Your task to perform on an android device: turn off translation in the chrome app Image 0: 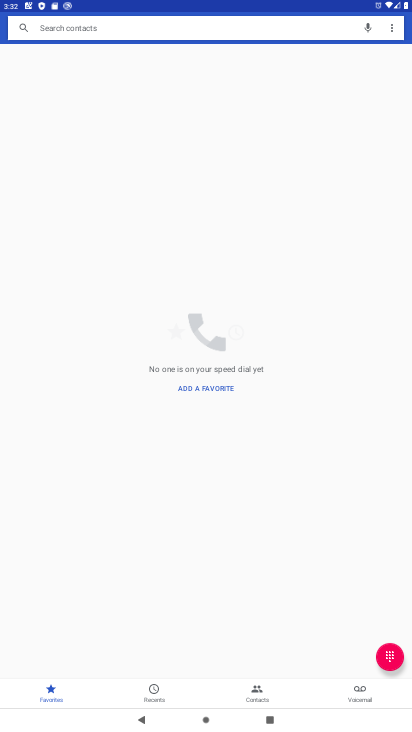
Step 0: press home button
Your task to perform on an android device: turn off translation in the chrome app Image 1: 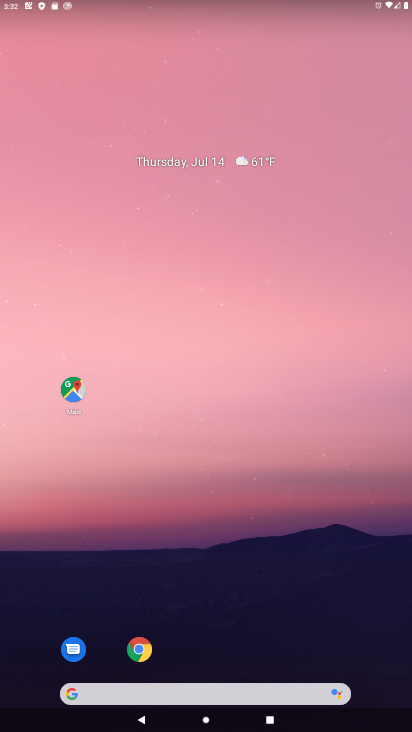
Step 1: drag from (192, 664) to (235, 107)
Your task to perform on an android device: turn off translation in the chrome app Image 2: 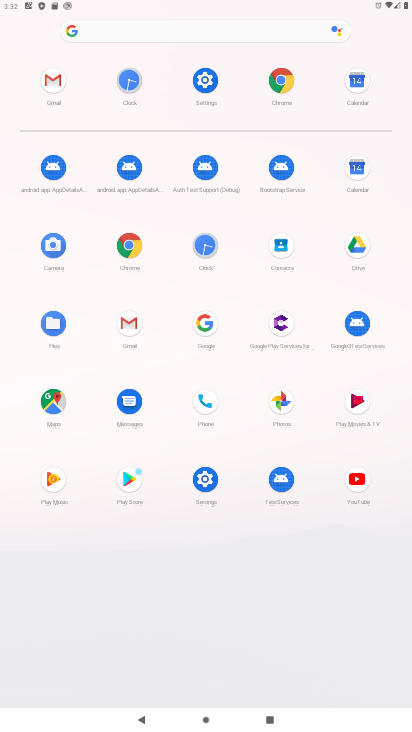
Step 2: click (128, 256)
Your task to perform on an android device: turn off translation in the chrome app Image 3: 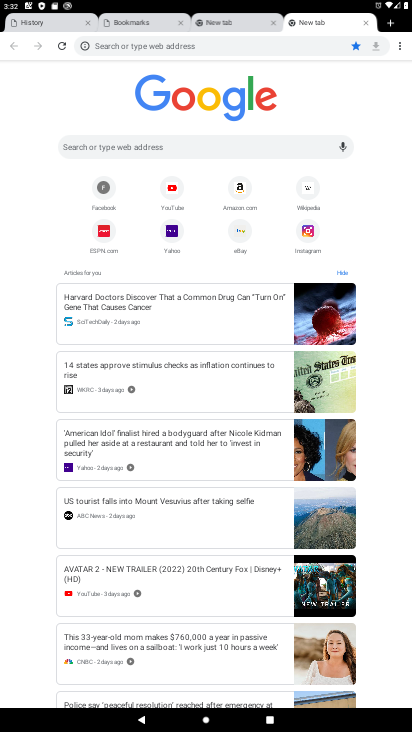
Step 3: click (402, 49)
Your task to perform on an android device: turn off translation in the chrome app Image 4: 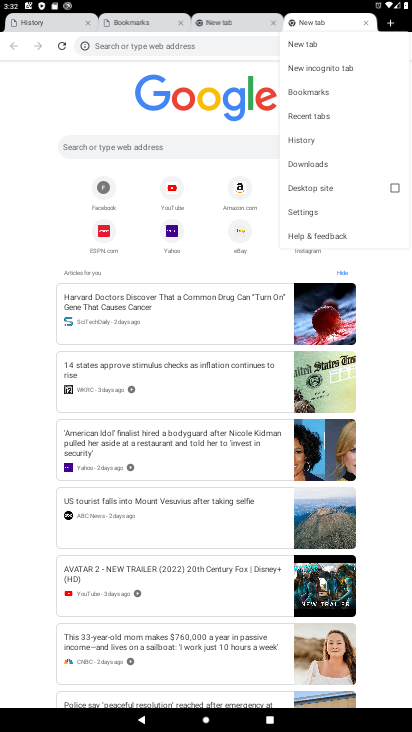
Step 4: click (308, 207)
Your task to perform on an android device: turn off translation in the chrome app Image 5: 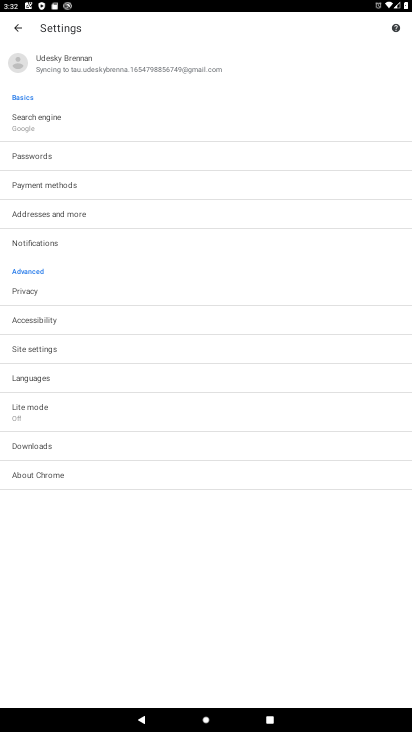
Step 5: click (44, 371)
Your task to perform on an android device: turn off translation in the chrome app Image 6: 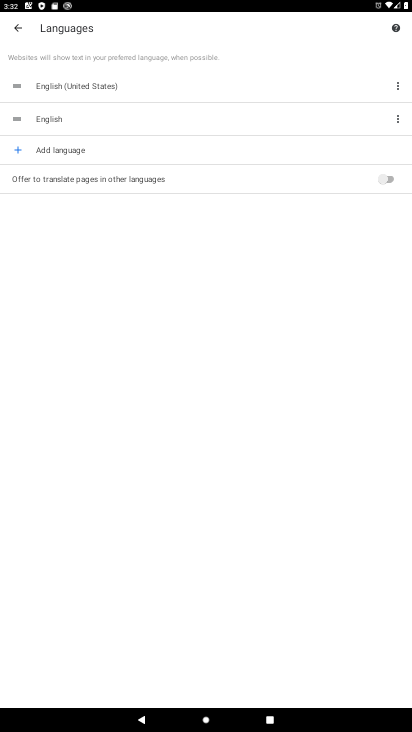
Step 6: task complete